Your task to perform on an android device: When is my next meeting? Image 0: 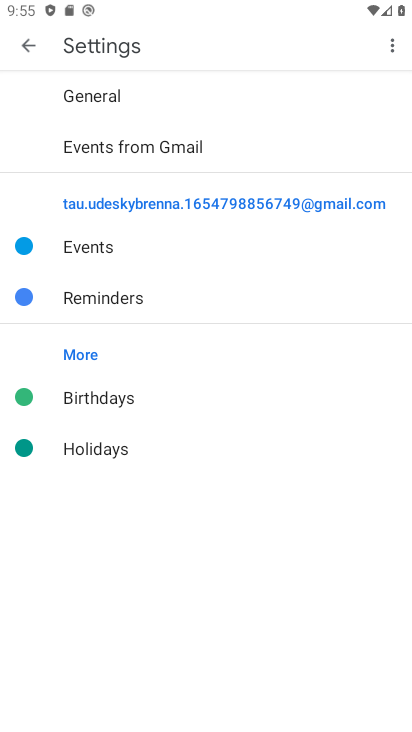
Step 0: press home button
Your task to perform on an android device: When is my next meeting? Image 1: 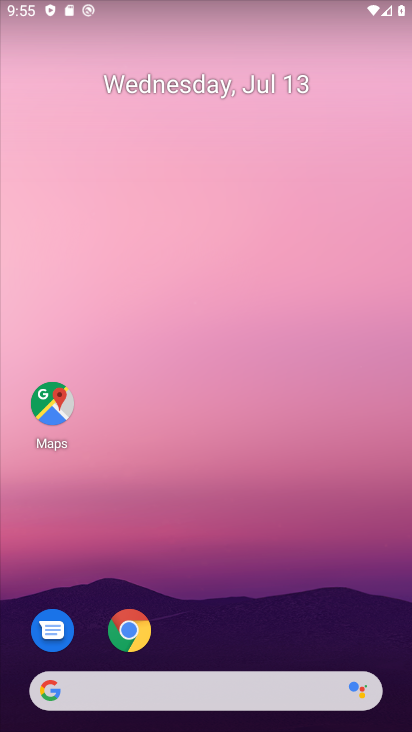
Step 1: drag from (267, 601) to (263, 53)
Your task to perform on an android device: When is my next meeting? Image 2: 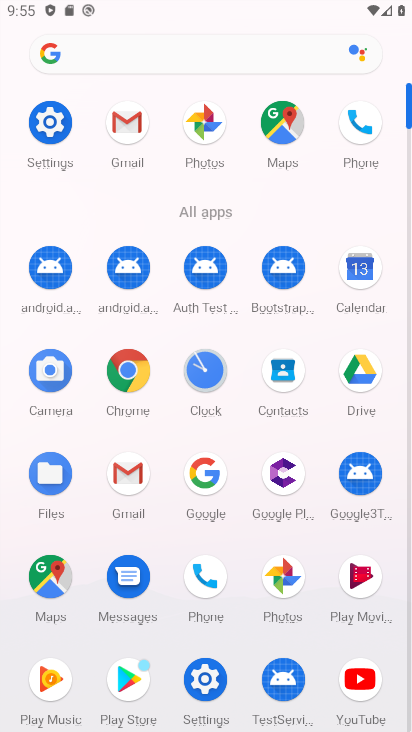
Step 2: click (354, 274)
Your task to perform on an android device: When is my next meeting? Image 3: 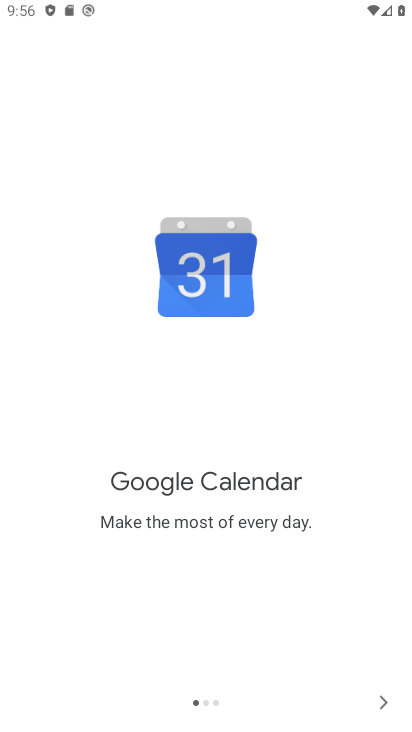
Step 3: click (379, 703)
Your task to perform on an android device: When is my next meeting? Image 4: 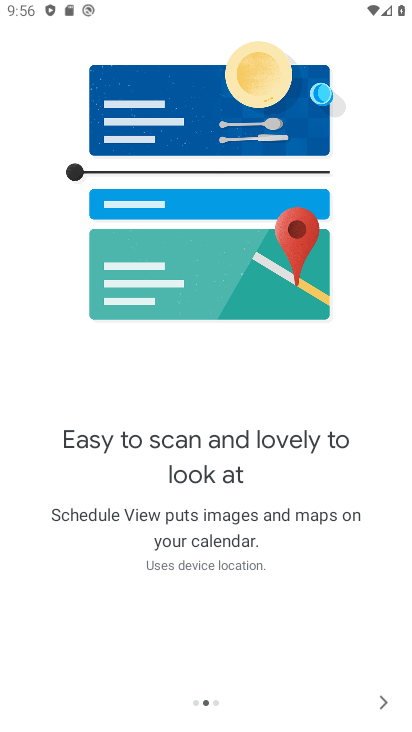
Step 4: click (379, 703)
Your task to perform on an android device: When is my next meeting? Image 5: 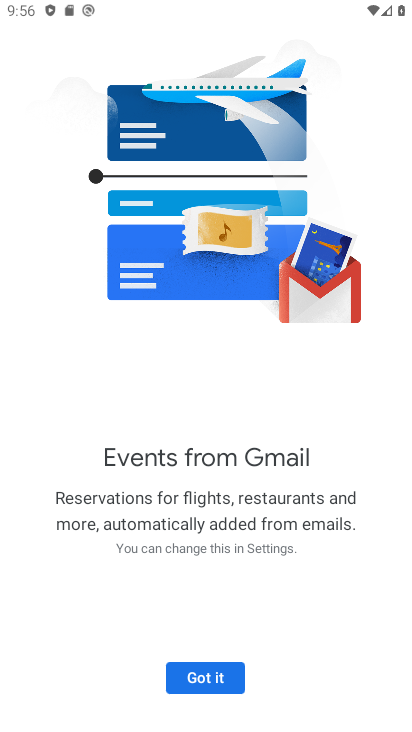
Step 5: click (187, 672)
Your task to perform on an android device: When is my next meeting? Image 6: 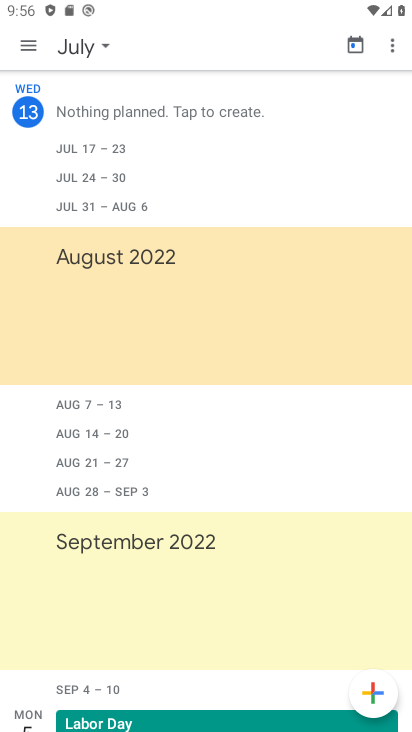
Step 6: click (71, 50)
Your task to perform on an android device: When is my next meeting? Image 7: 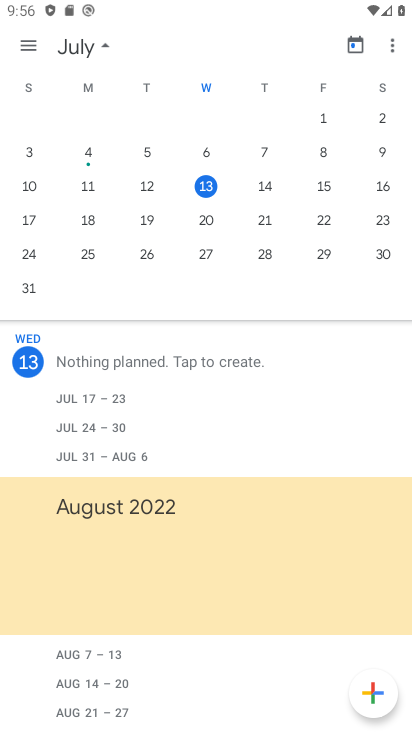
Step 7: click (203, 182)
Your task to perform on an android device: When is my next meeting? Image 8: 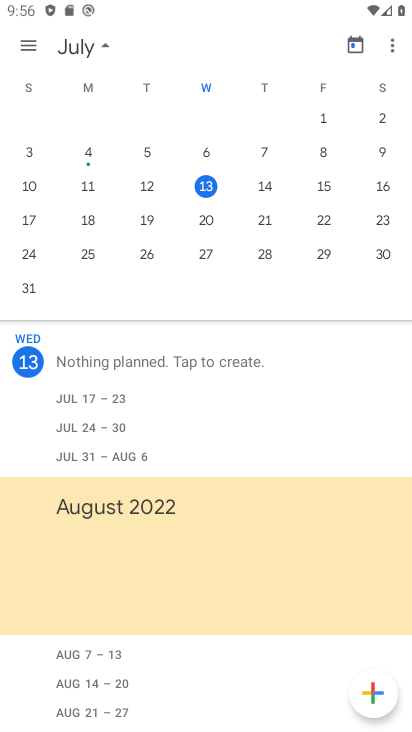
Step 8: task complete